Your task to perform on an android device: turn on priority inbox in the gmail app Image 0: 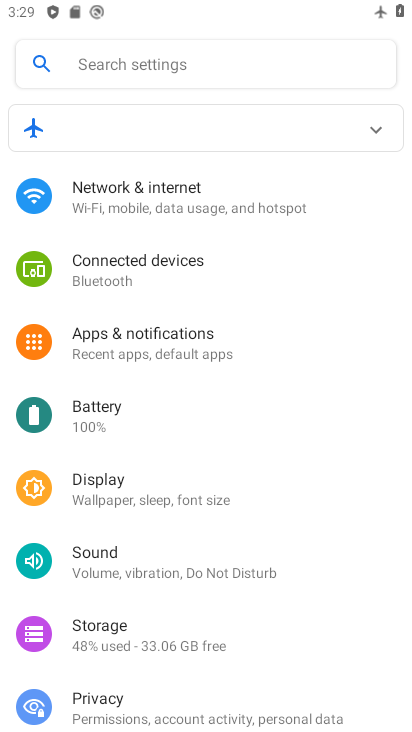
Step 0: press home button
Your task to perform on an android device: turn on priority inbox in the gmail app Image 1: 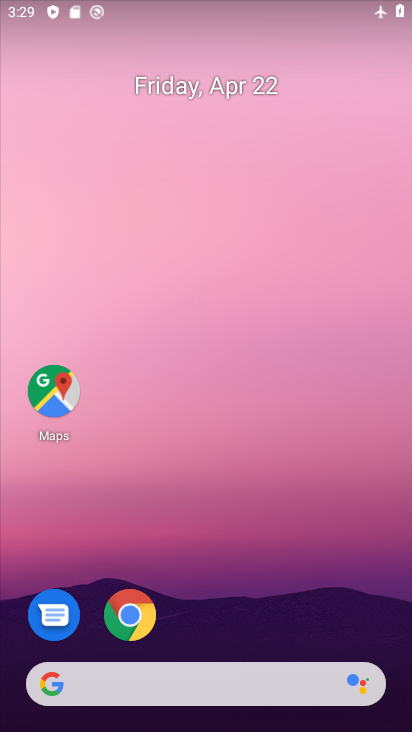
Step 1: drag from (221, 656) to (290, 239)
Your task to perform on an android device: turn on priority inbox in the gmail app Image 2: 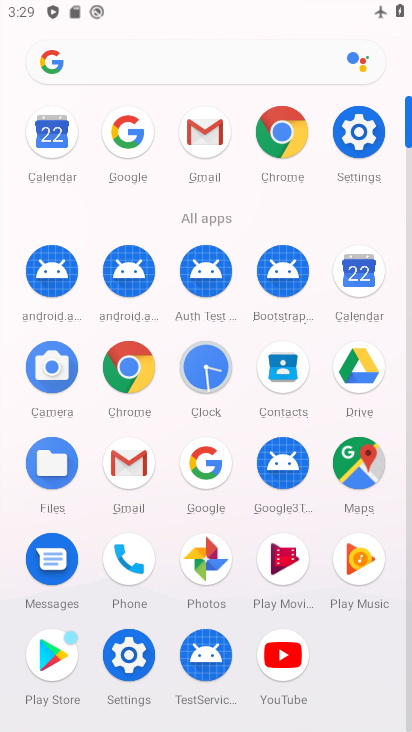
Step 2: click (135, 473)
Your task to perform on an android device: turn on priority inbox in the gmail app Image 3: 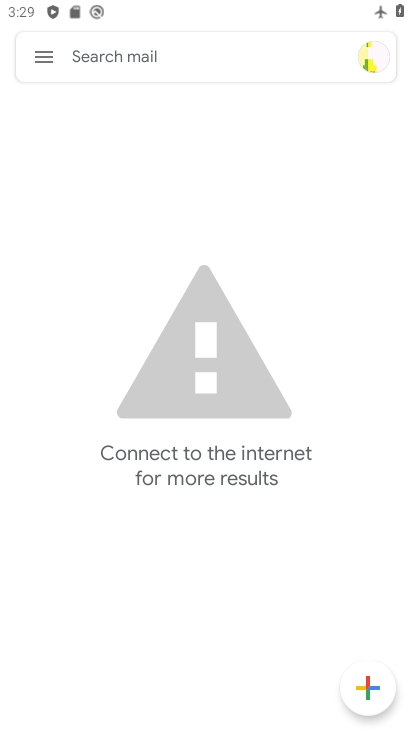
Step 3: click (33, 58)
Your task to perform on an android device: turn on priority inbox in the gmail app Image 4: 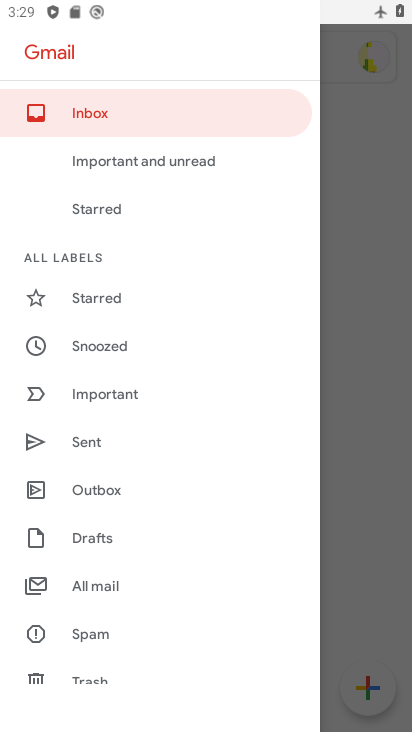
Step 4: drag from (92, 667) to (135, 249)
Your task to perform on an android device: turn on priority inbox in the gmail app Image 5: 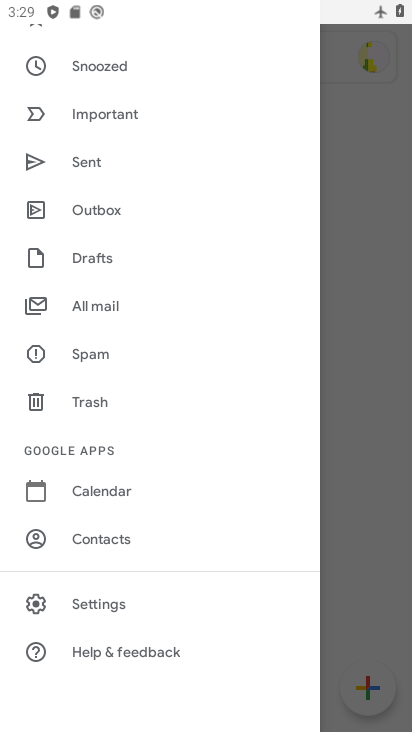
Step 5: click (97, 604)
Your task to perform on an android device: turn on priority inbox in the gmail app Image 6: 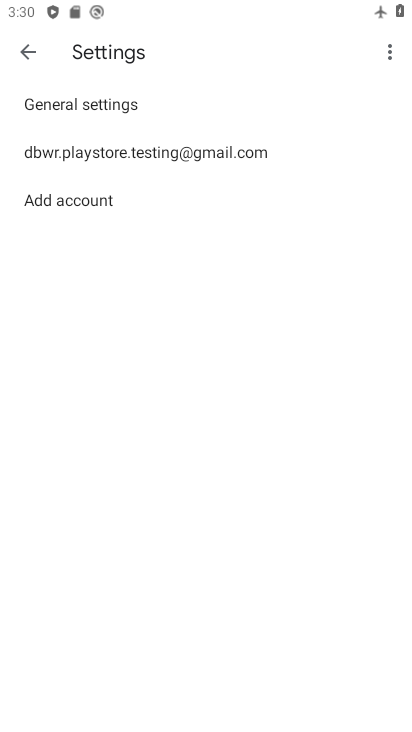
Step 6: click (107, 136)
Your task to perform on an android device: turn on priority inbox in the gmail app Image 7: 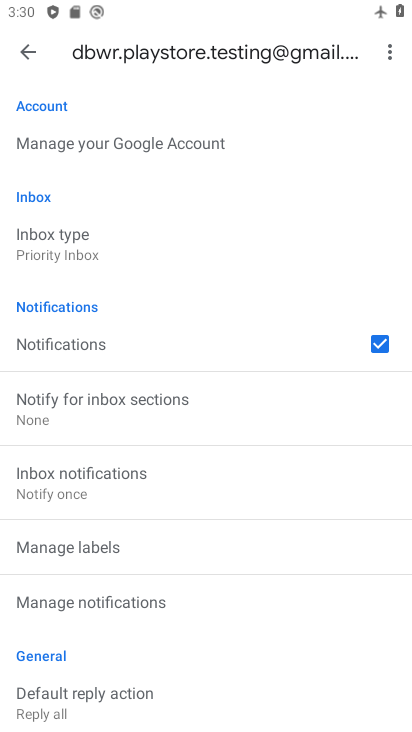
Step 7: click (75, 244)
Your task to perform on an android device: turn on priority inbox in the gmail app Image 8: 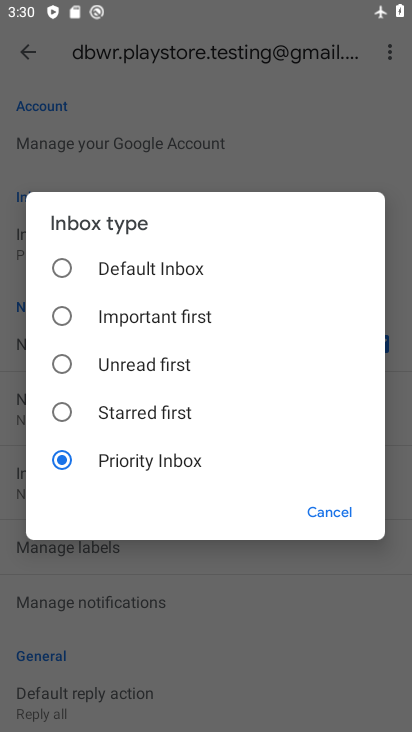
Step 8: task complete